Your task to perform on an android device: Show me the alarms in the clock app Image 0: 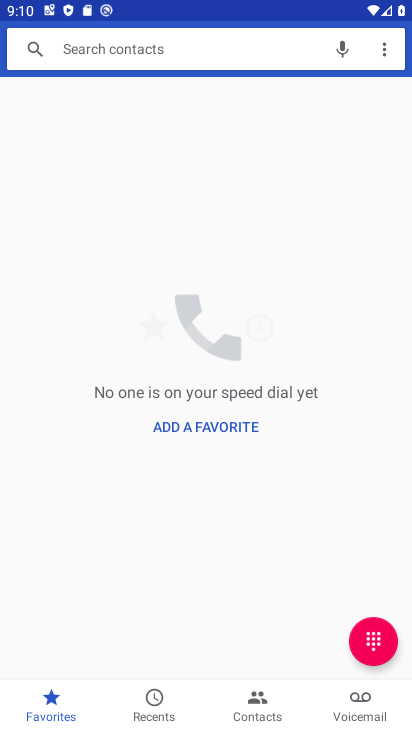
Step 0: press home button
Your task to perform on an android device: Show me the alarms in the clock app Image 1: 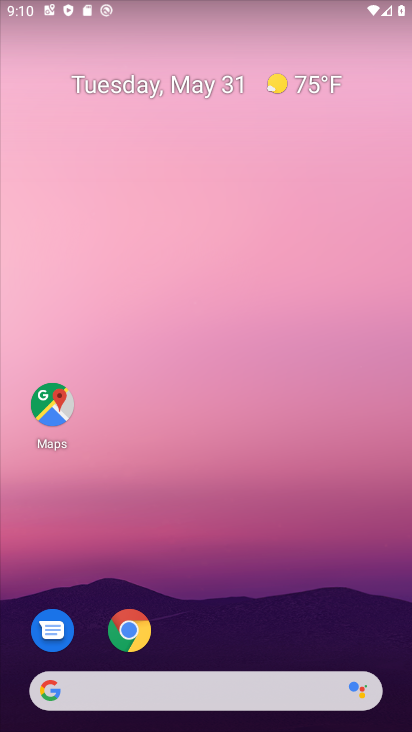
Step 1: drag from (231, 591) to (265, 238)
Your task to perform on an android device: Show me the alarms in the clock app Image 2: 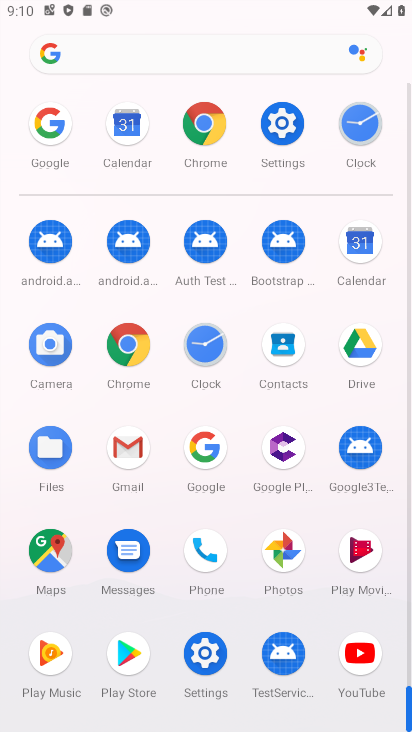
Step 2: click (207, 369)
Your task to perform on an android device: Show me the alarms in the clock app Image 3: 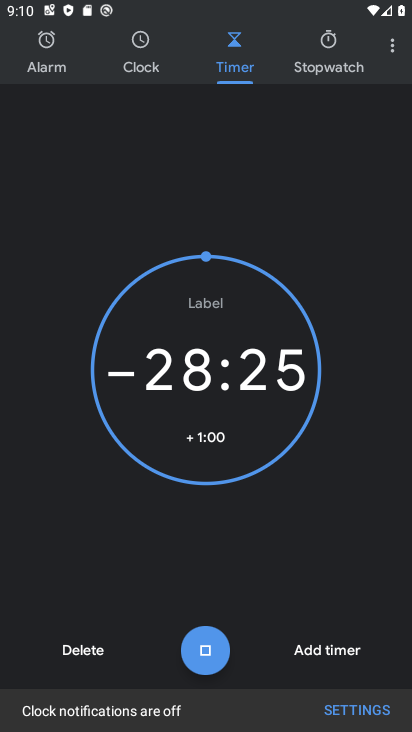
Step 3: click (46, 66)
Your task to perform on an android device: Show me the alarms in the clock app Image 4: 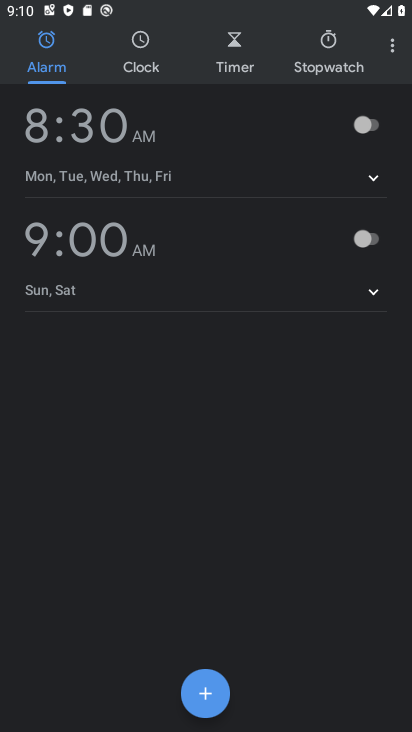
Step 4: task complete